Your task to perform on an android device: check the backup settings in the google photos Image 0: 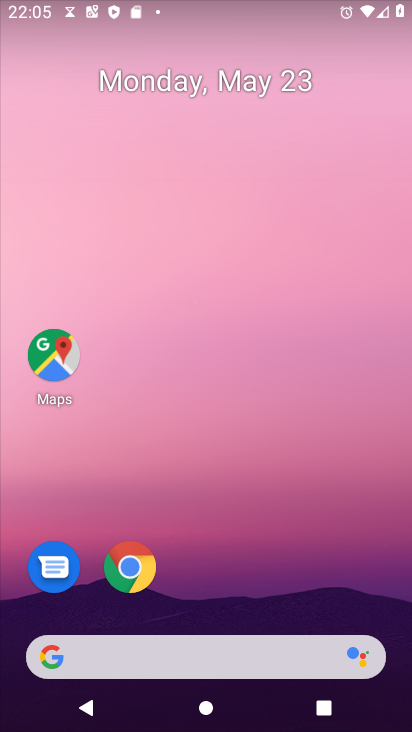
Step 0: drag from (266, 570) to (264, 233)
Your task to perform on an android device: check the backup settings in the google photos Image 1: 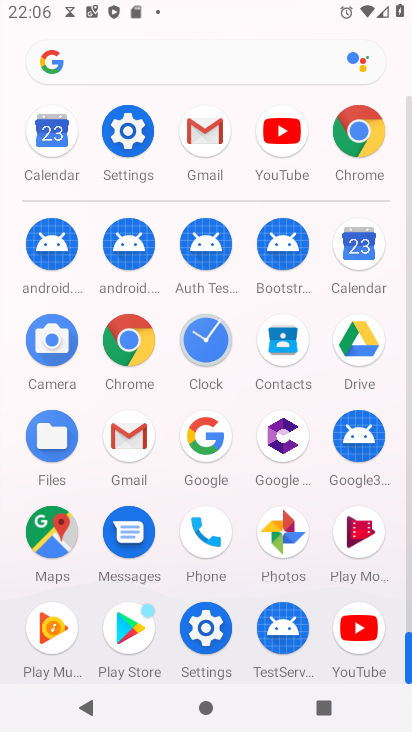
Step 1: click (283, 517)
Your task to perform on an android device: check the backup settings in the google photos Image 2: 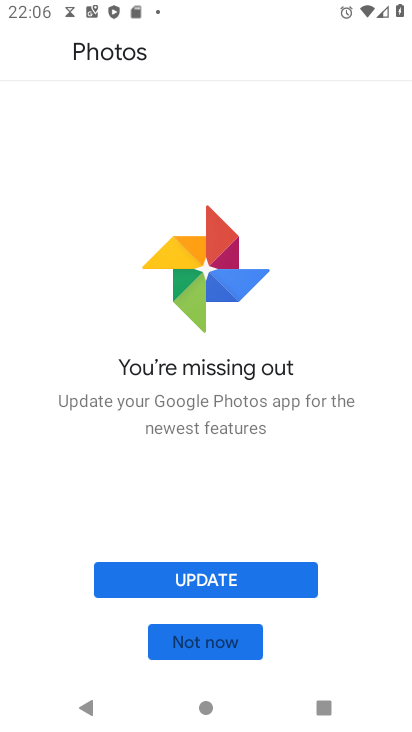
Step 2: click (194, 652)
Your task to perform on an android device: check the backup settings in the google photos Image 3: 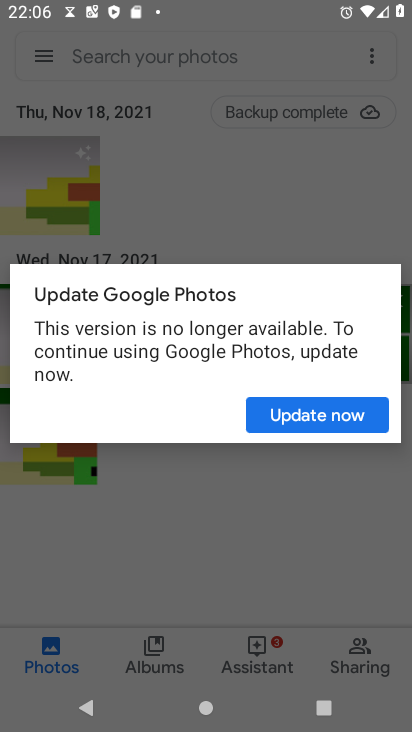
Step 3: click (309, 413)
Your task to perform on an android device: check the backup settings in the google photos Image 4: 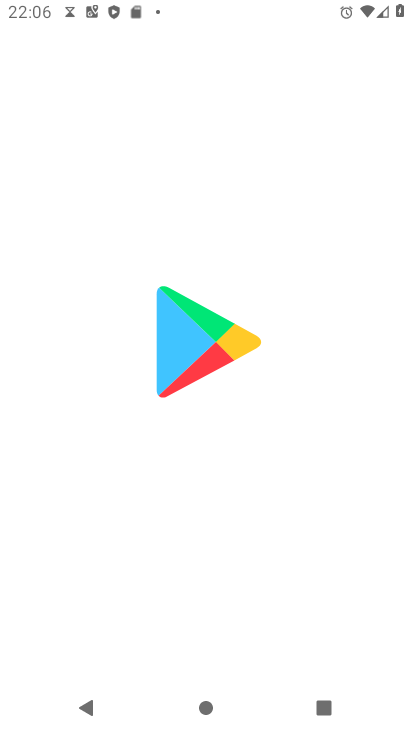
Step 4: press back button
Your task to perform on an android device: check the backup settings in the google photos Image 5: 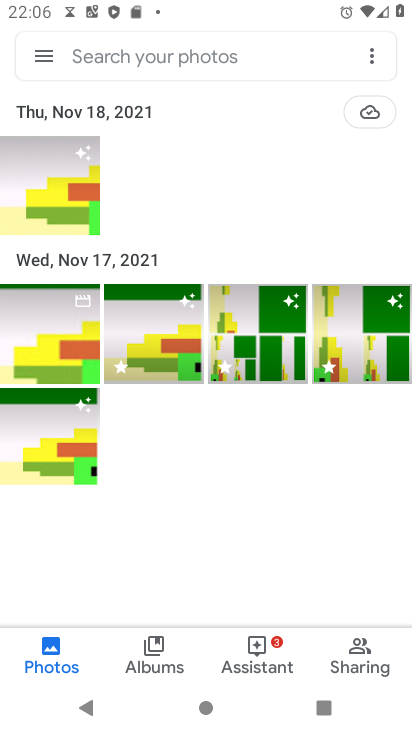
Step 5: click (40, 306)
Your task to perform on an android device: check the backup settings in the google photos Image 6: 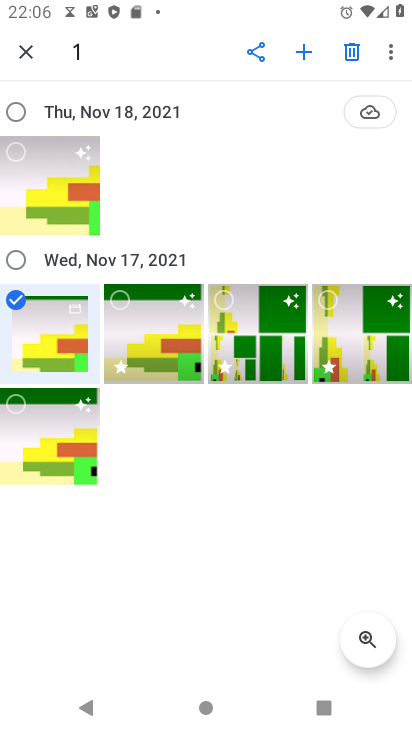
Step 6: click (20, 62)
Your task to perform on an android device: check the backup settings in the google photos Image 7: 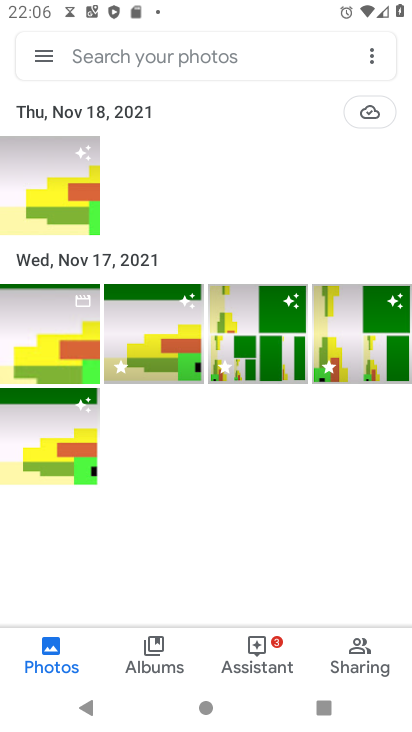
Step 7: click (50, 51)
Your task to perform on an android device: check the backup settings in the google photos Image 8: 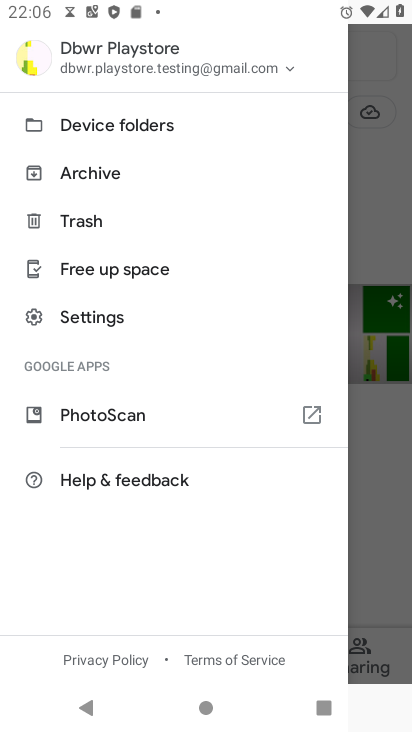
Step 8: click (137, 331)
Your task to perform on an android device: check the backup settings in the google photos Image 9: 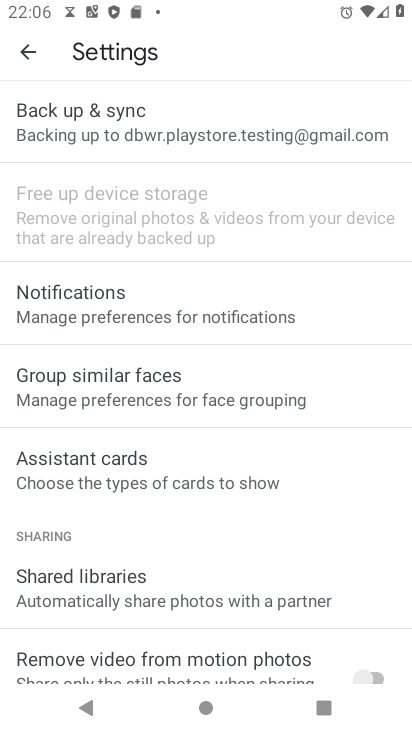
Step 9: click (161, 123)
Your task to perform on an android device: check the backup settings in the google photos Image 10: 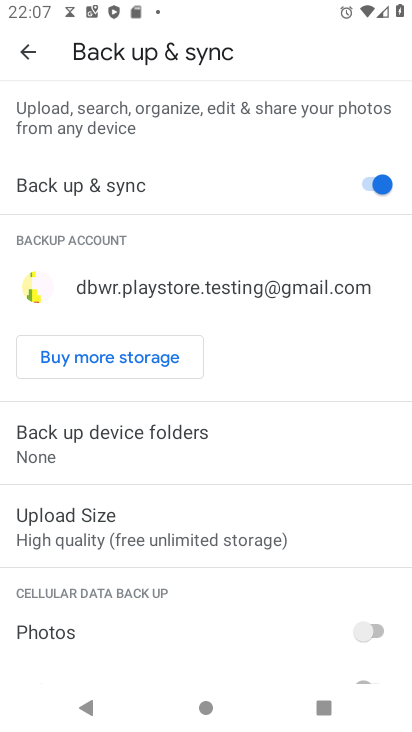
Step 10: task complete